Your task to perform on an android device: turn on data saver in the chrome app Image 0: 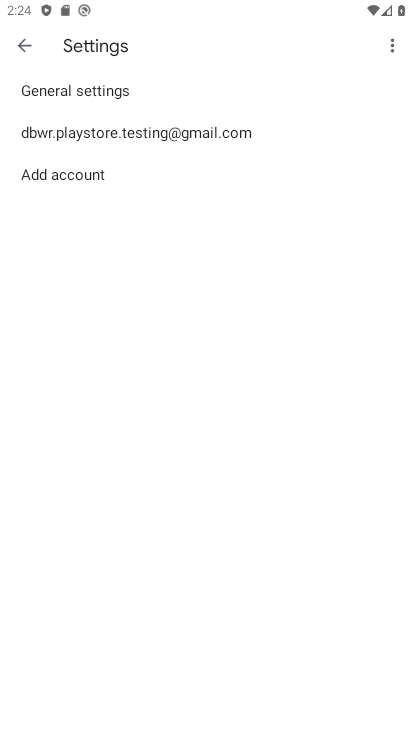
Step 0: press home button
Your task to perform on an android device: turn on data saver in the chrome app Image 1: 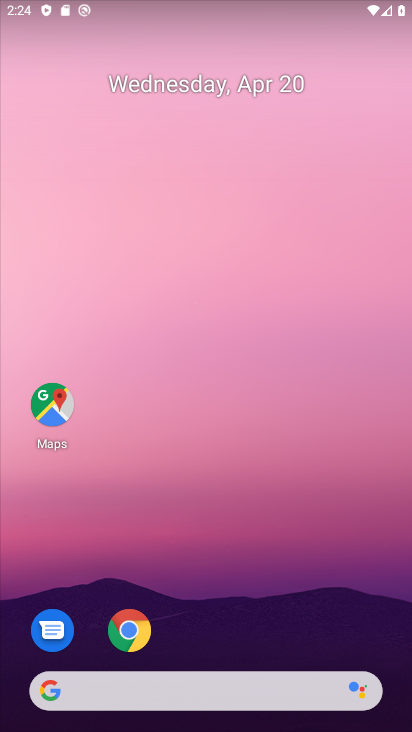
Step 1: click (124, 641)
Your task to perform on an android device: turn on data saver in the chrome app Image 2: 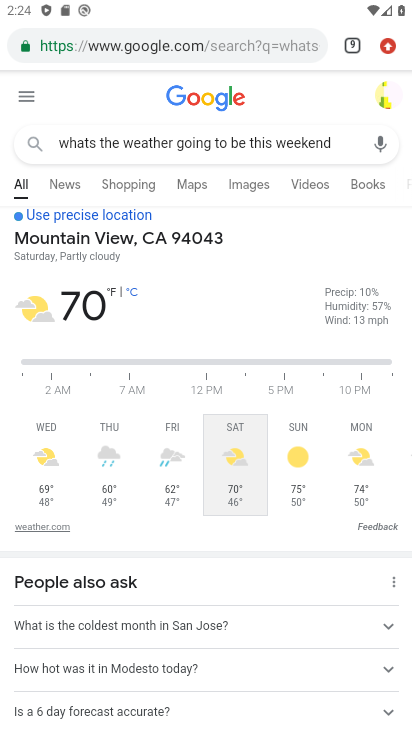
Step 2: drag from (384, 46) to (226, 552)
Your task to perform on an android device: turn on data saver in the chrome app Image 3: 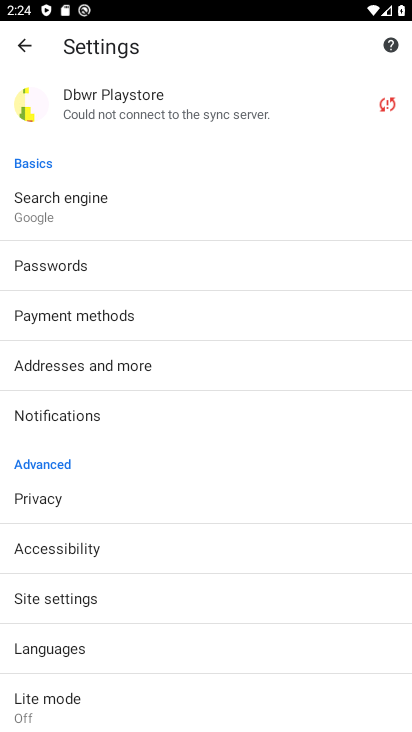
Step 3: click (36, 697)
Your task to perform on an android device: turn on data saver in the chrome app Image 4: 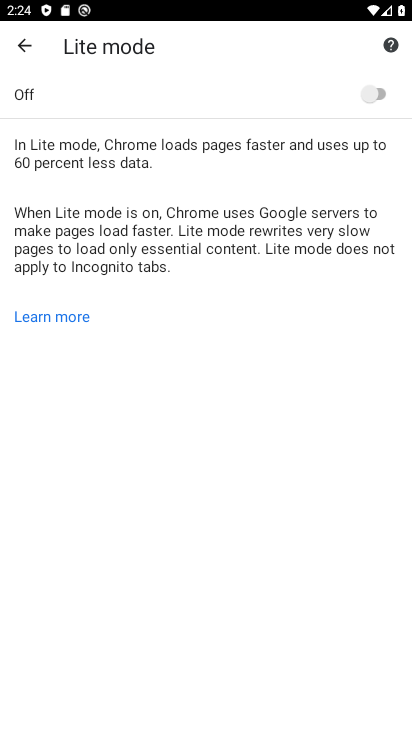
Step 4: click (368, 99)
Your task to perform on an android device: turn on data saver in the chrome app Image 5: 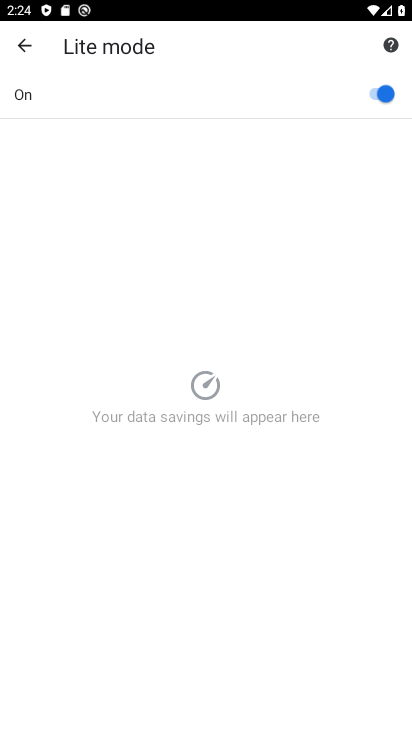
Step 5: task complete